Your task to perform on an android device: Check the weather Image 0: 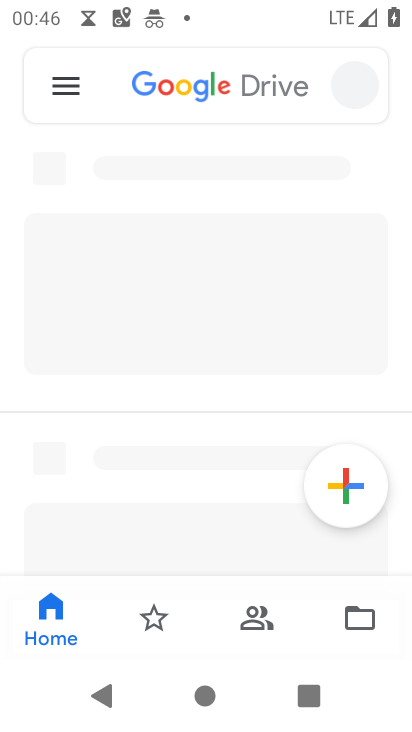
Step 0: drag from (215, 539) to (299, 385)
Your task to perform on an android device: Check the weather Image 1: 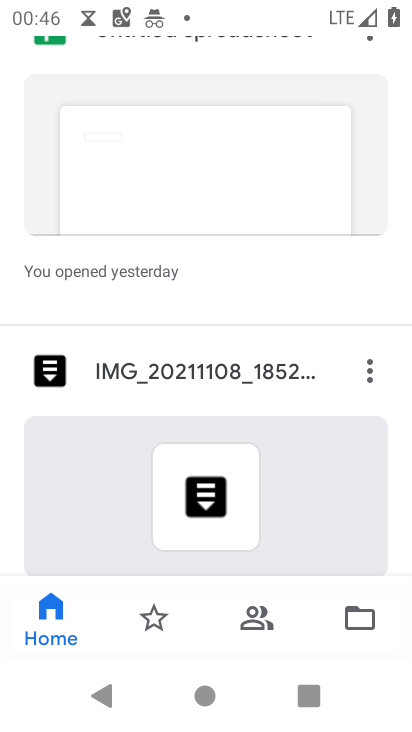
Step 1: press home button
Your task to perform on an android device: Check the weather Image 2: 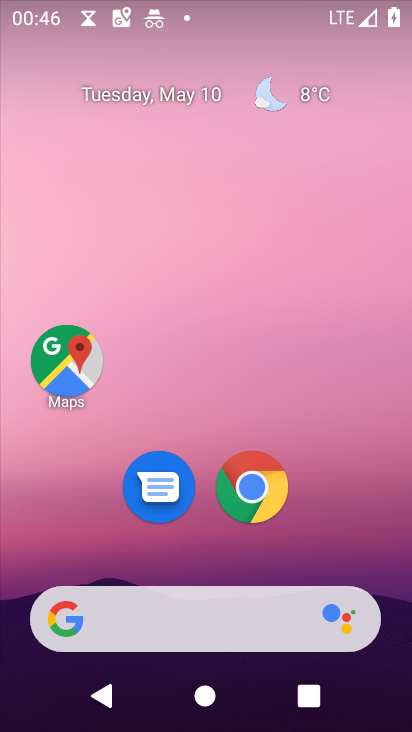
Step 2: click (312, 88)
Your task to perform on an android device: Check the weather Image 3: 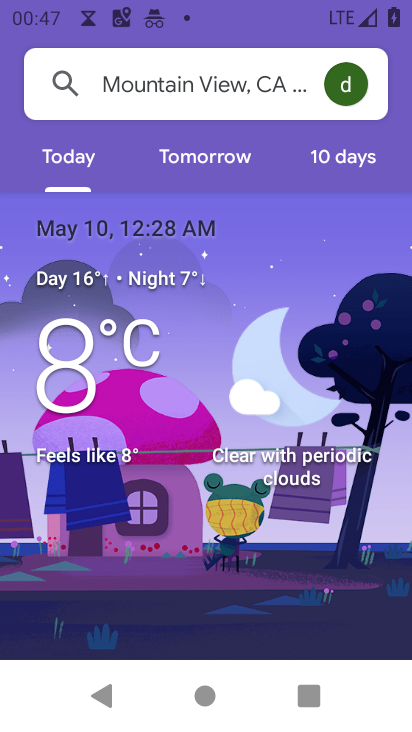
Step 3: task complete